Your task to perform on an android device: change the clock display to show seconds Image 0: 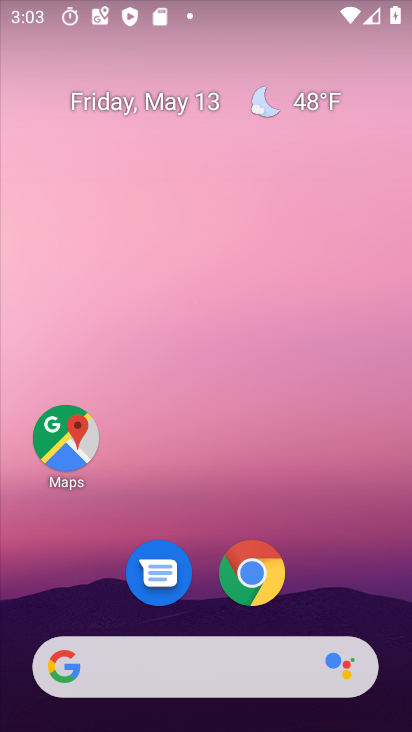
Step 0: drag from (61, 636) to (201, 224)
Your task to perform on an android device: change the clock display to show seconds Image 1: 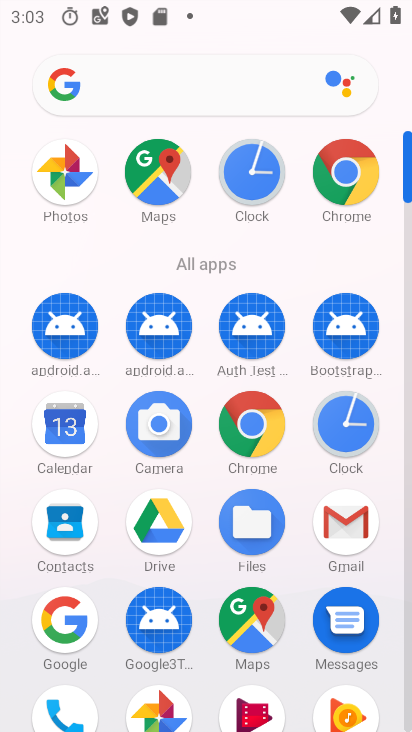
Step 1: click (364, 427)
Your task to perform on an android device: change the clock display to show seconds Image 2: 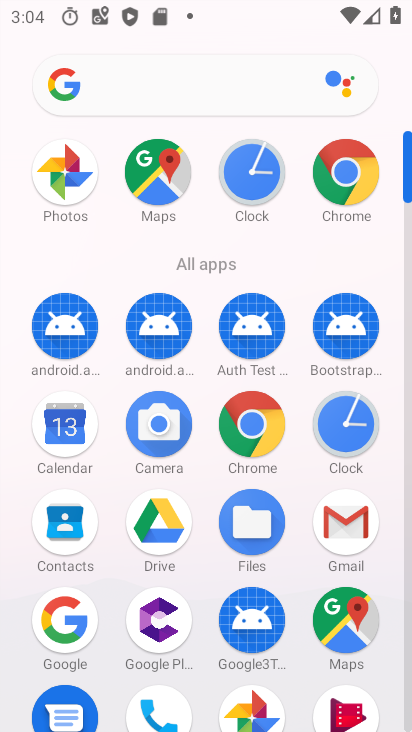
Step 2: click (357, 434)
Your task to perform on an android device: change the clock display to show seconds Image 3: 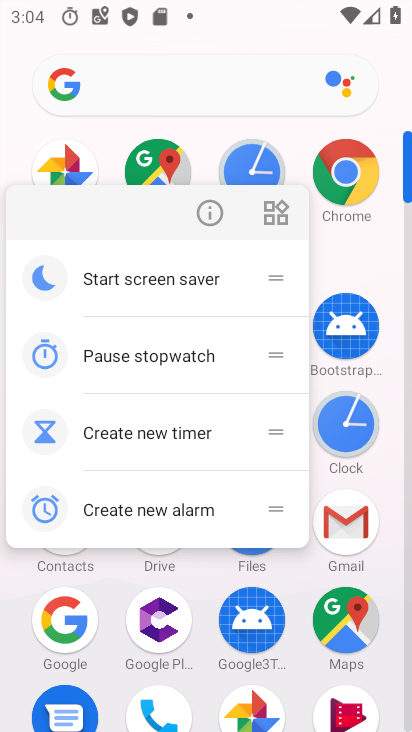
Step 3: click (358, 424)
Your task to perform on an android device: change the clock display to show seconds Image 4: 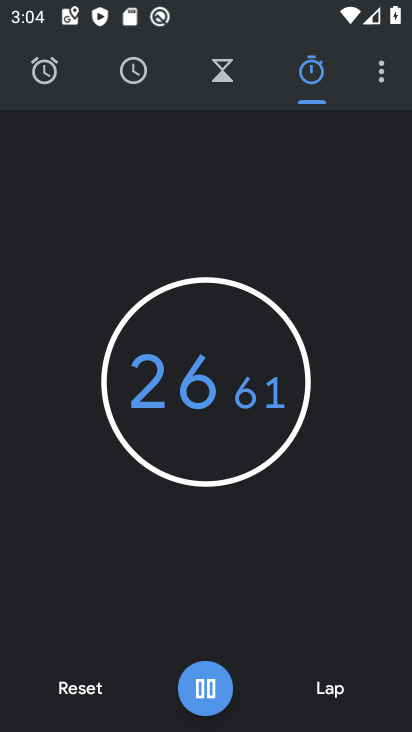
Step 4: click (379, 70)
Your task to perform on an android device: change the clock display to show seconds Image 5: 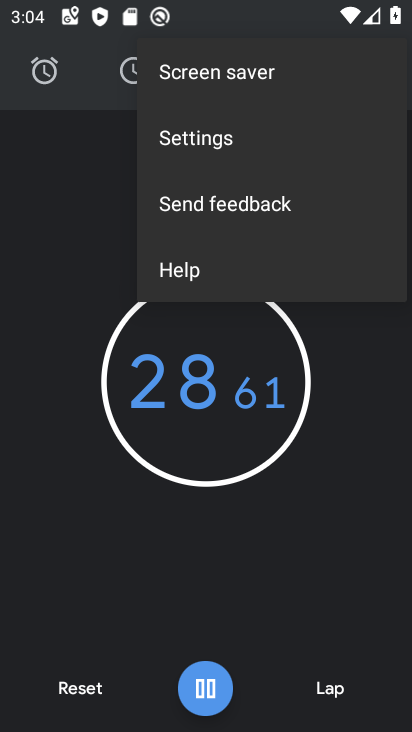
Step 5: click (247, 151)
Your task to perform on an android device: change the clock display to show seconds Image 6: 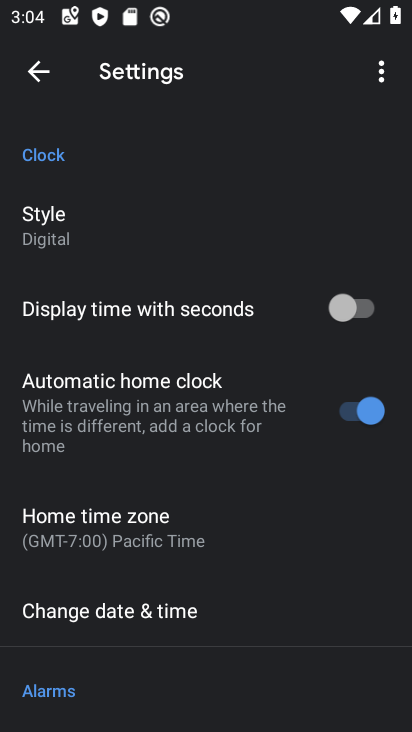
Step 6: click (355, 304)
Your task to perform on an android device: change the clock display to show seconds Image 7: 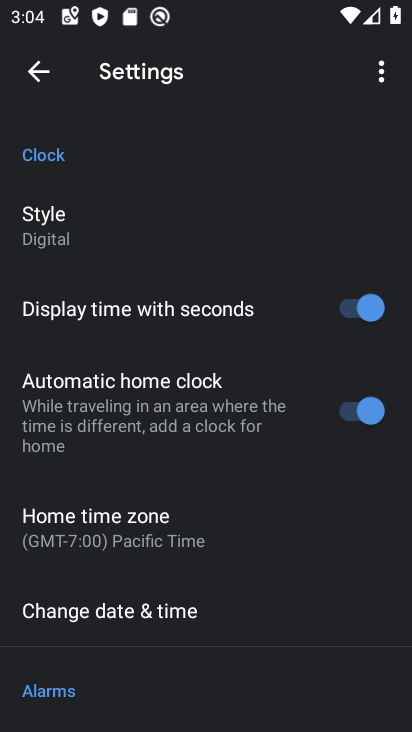
Step 7: task complete